Your task to perform on an android device: move a message to another label in the gmail app Image 0: 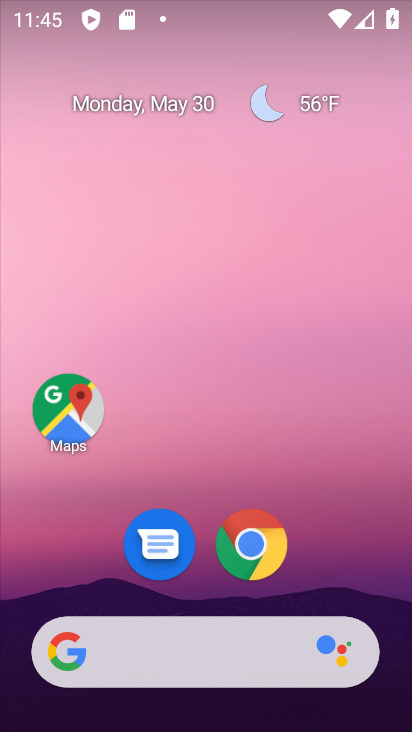
Step 0: drag from (319, 538) to (165, 66)
Your task to perform on an android device: move a message to another label in the gmail app Image 1: 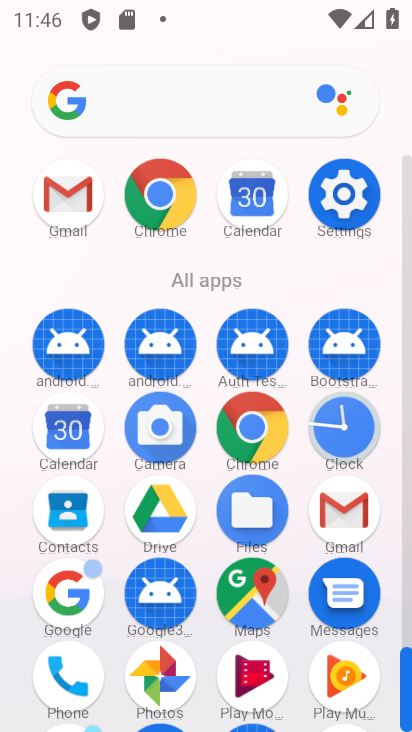
Step 1: click (63, 191)
Your task to perform on an android device: move a message to another label in the gmail app Image 2: 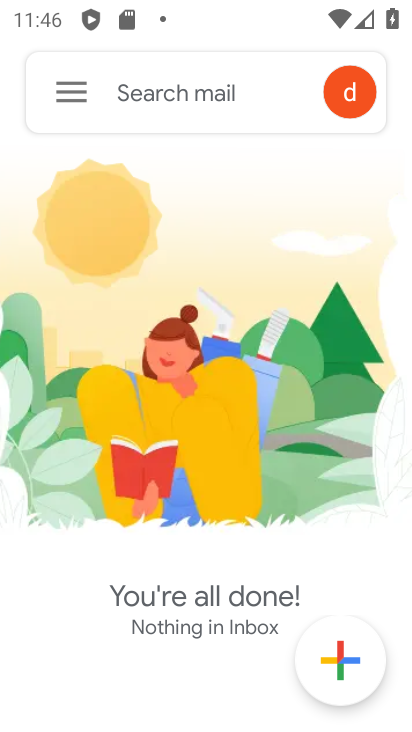
Step 2: click (70, 85)
Your task to perform on an android device: move a message to another label in the gmail app Image 3: 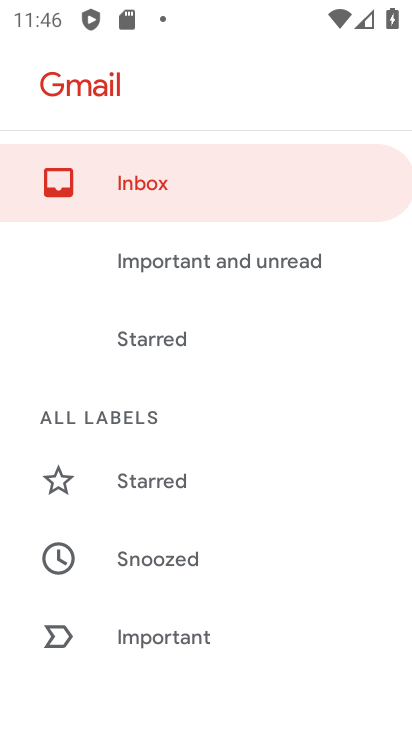
Step 3: drag from (221, 564) to (206, 290)
Your task to perform on an android device: move a message to another label in the gmail app Image 4: 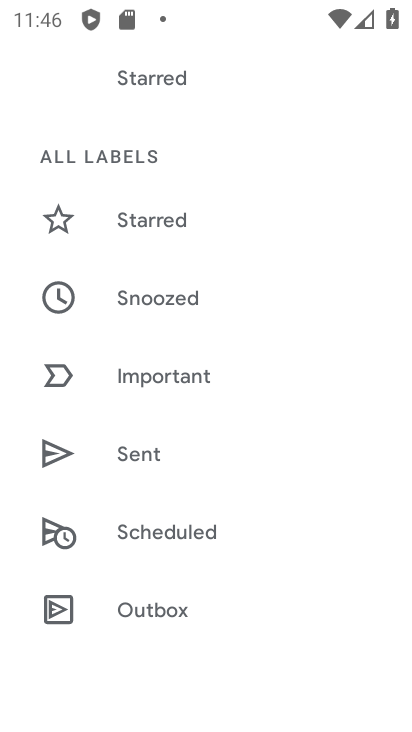
Step 4: drag from (268, 536) to (265, 208)
Your task to perform on an android device: move a message to another label in the gmail app Image 5: 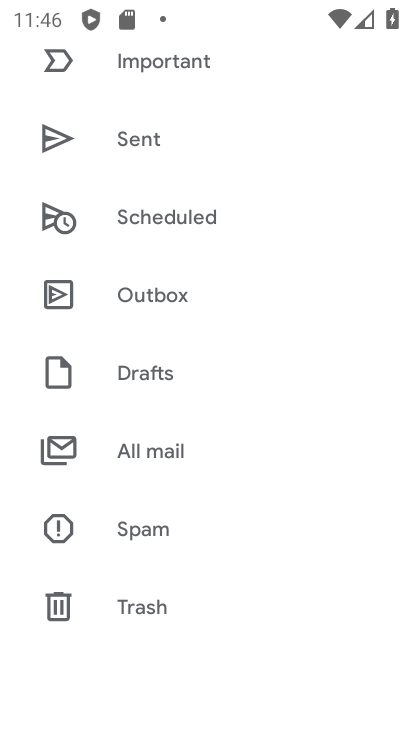
Step 5: click (157, 443)
Your task to perform on an android device: move a message to another label in the gmail app Image 6: 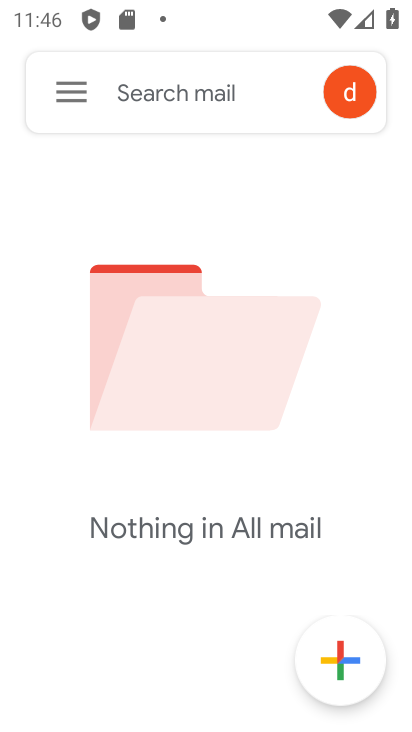
Step 6: task complete